Your task to perform on an android device: open wifi settings Image 0: 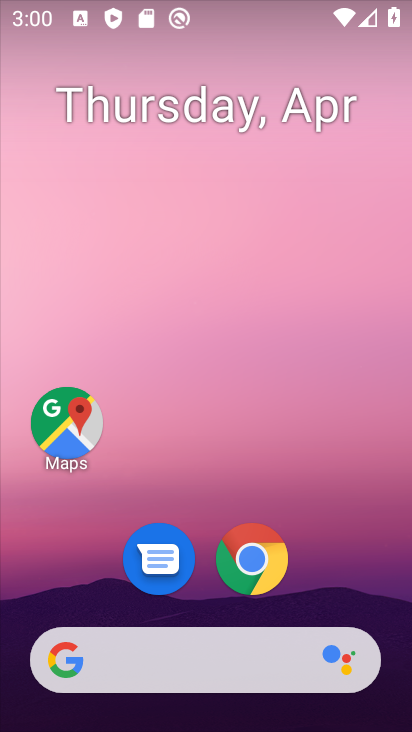
Step 0: drag from (325, 544) to (365, 131)
Your task to perform on an android device: open wifi settings Image 1: 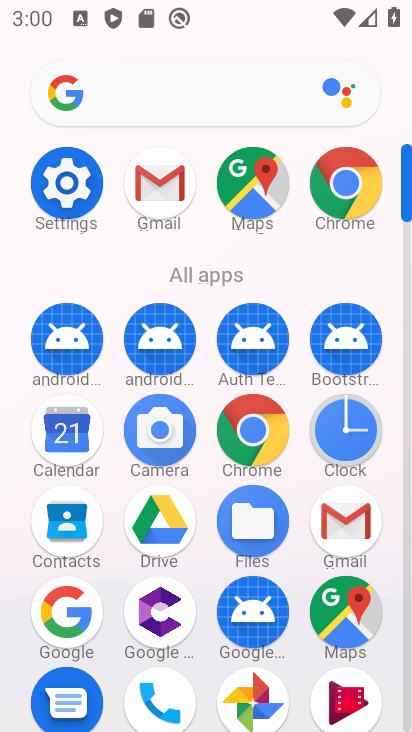
Step 1: click (69, 185)
Your task to perform on an android device: open wifi settings Image 2: 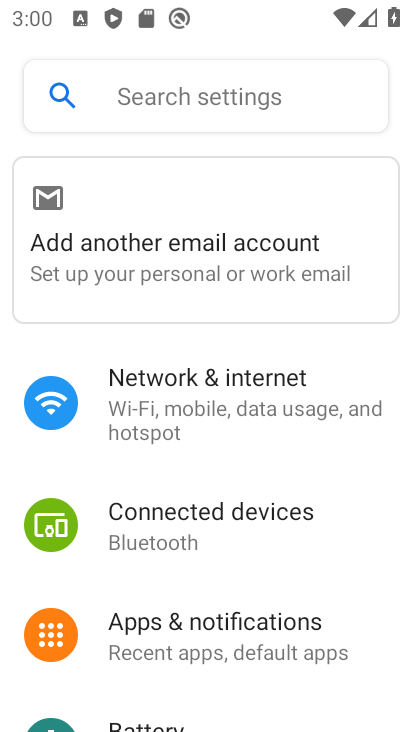
Step 2: click (191, 411)
Your task to perform on an android device: open wifi settings Image 3: 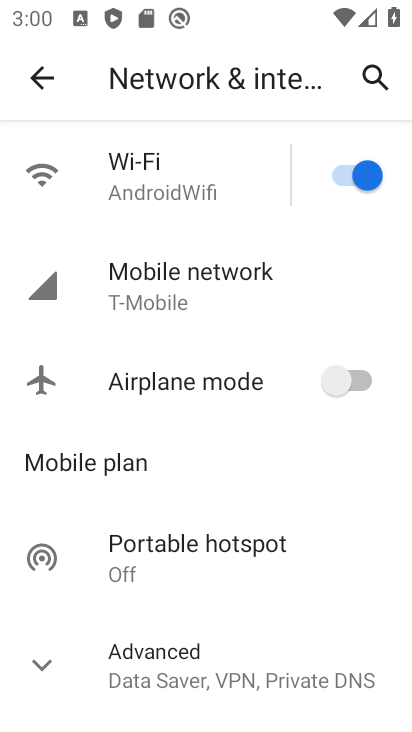
Step 3: click (184, 179)
Your task to perform on an android device: open wifi settings Image 4: 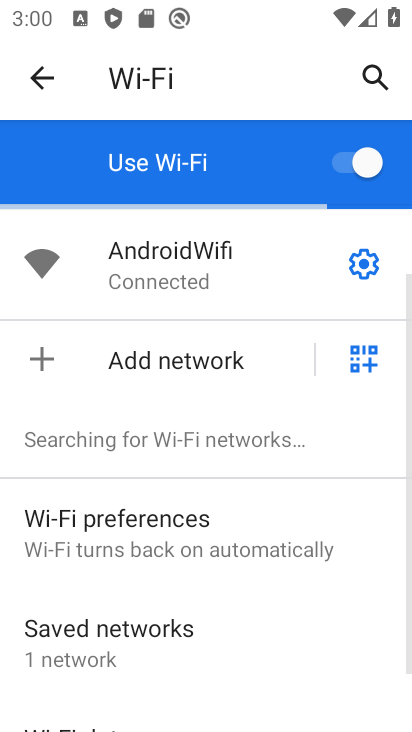
Step 4: click (357, 248)
Your task to perform on an android device: open wifi settings Image 5: 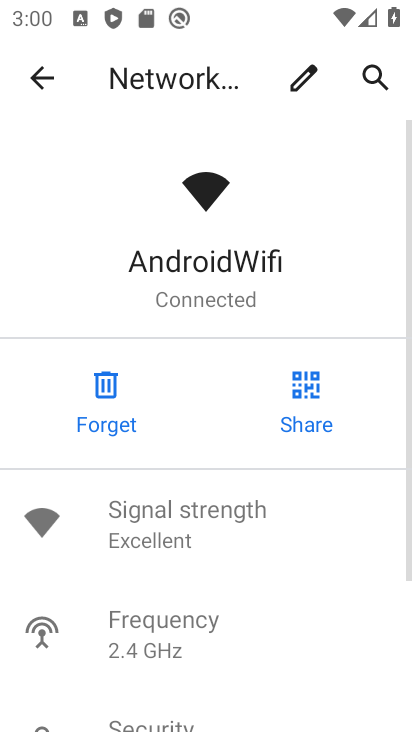
Step 5: task complete